Your task to perform on an android device: turn off location history Image 0: 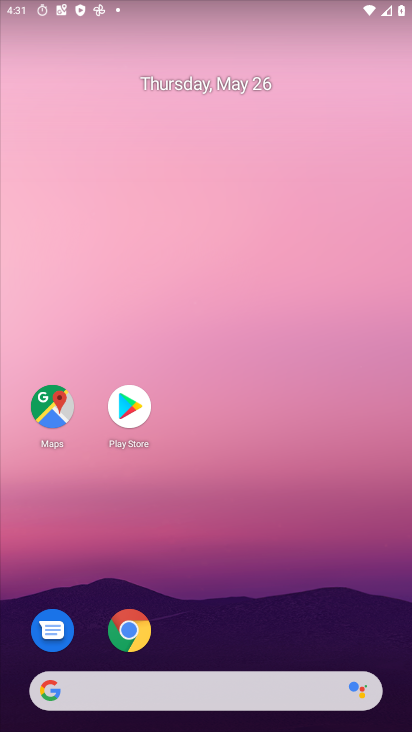
Step 0: drag from (281, 650) to (284, 93)
Your task to perform on an android device: turn off location history Image 1: 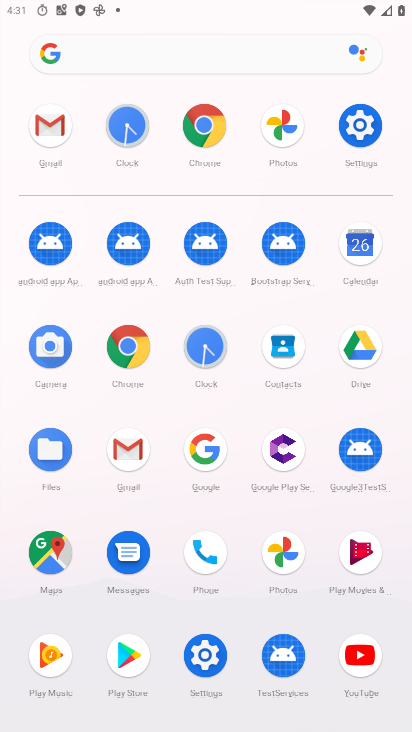
Step 1: click (356, 128)
Your task to perform on an android device: turn off location history Image 2: 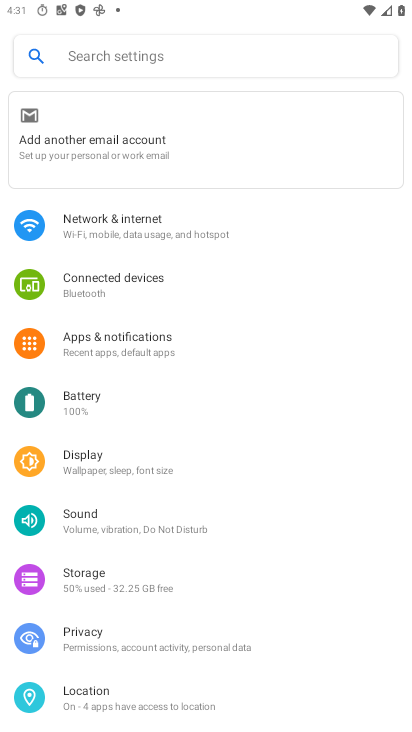
Step 2: click (148, 682)
Your task to perform on an android device: turn off location history Image 3: 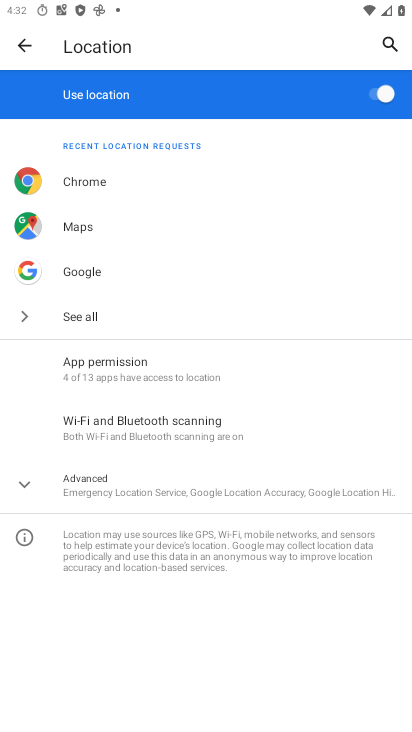
Step 3: click (283, 484)
Your task to perform on an android device: turn off location history Image 4: 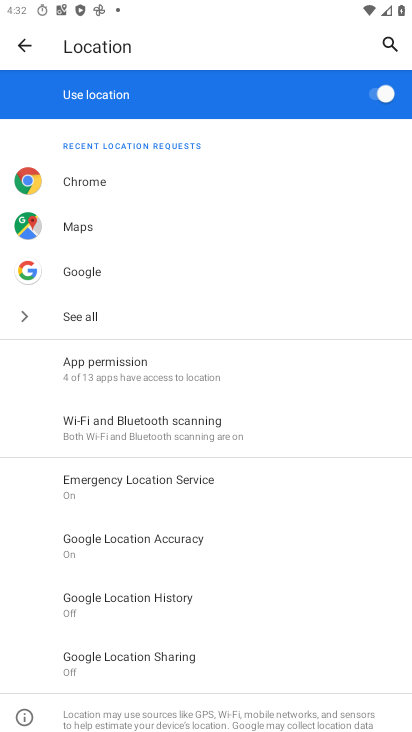
Step 4: click (103, 604)
Your task to perform on an android device: turn off location history Image 5: 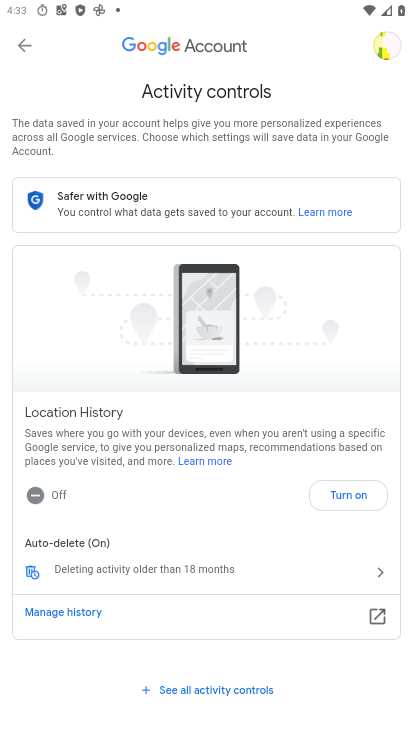
Step 5: task complete